Your task to perform on an android device: toggle priority inbox in the gmail app Image 0: 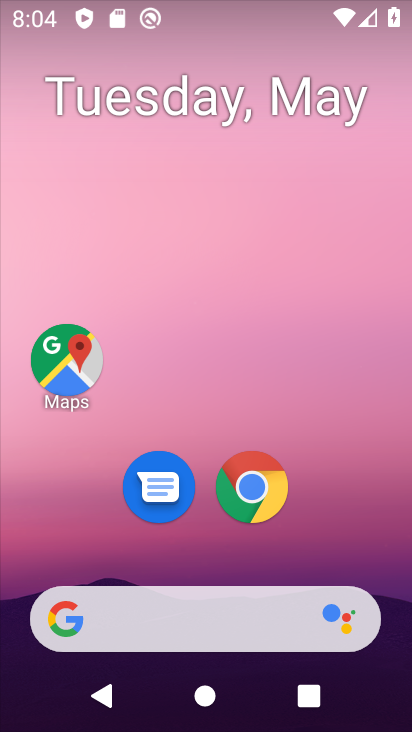
Step 0: drag from (225, 422) to (141, 68)
Your task to perform on an android device: toggle priority inbox in the gmail app Image 1: 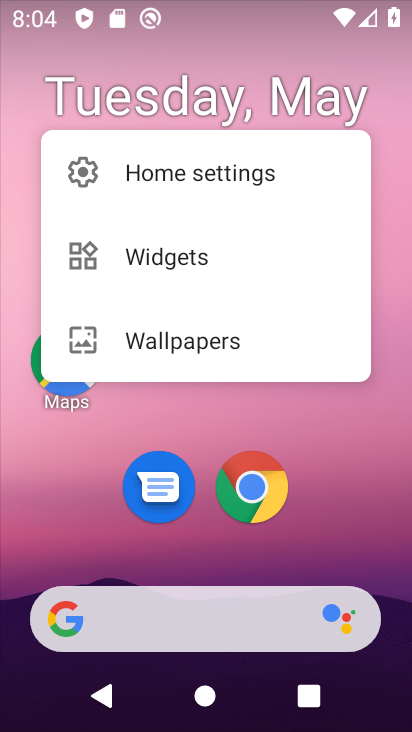
Step 1: click (359, 465)
Your task to perform on an android device: toggle priority inbox in the gmail app Image 2: 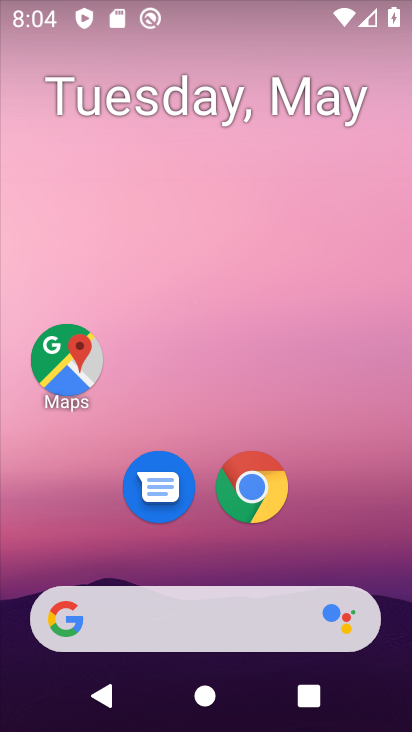
Step 2: drag from (320, 537) to (213, 130)
Your task to perform on an android device: toggle priority inbox in the gmail app Image 3: 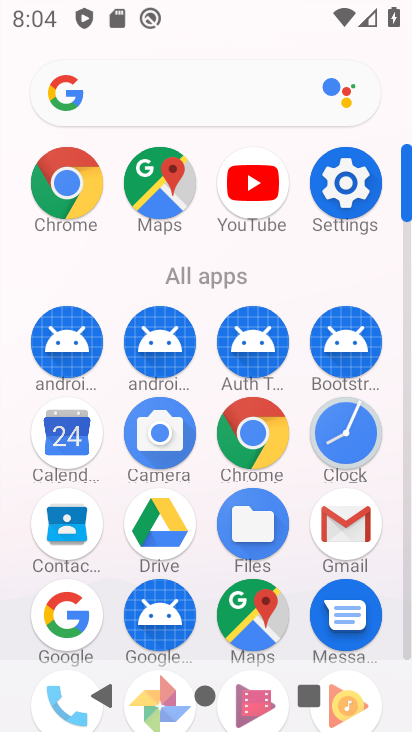
Step 3: click (353, 186)
Your task to perform on an android device: toggle priority inbox in the gmail app Image 4: 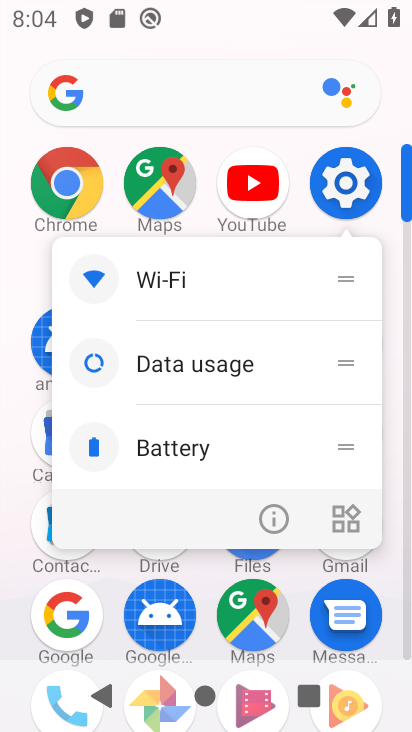
Step 4: click (360, 182)
Your task to perform on an android device: toggle priority inbox in the gmail app Image 5: 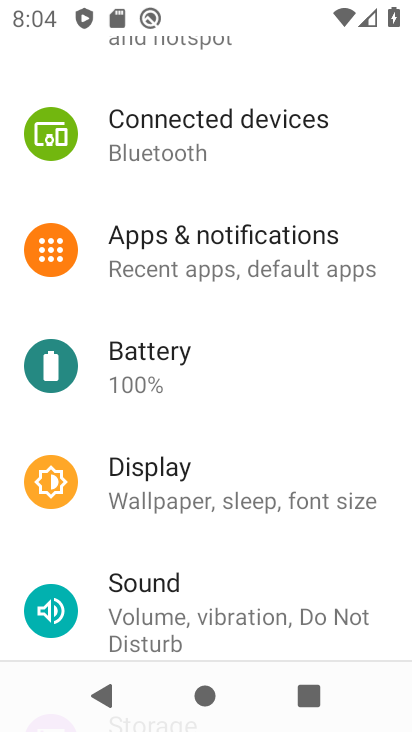
Step 5: drag from (323, 521) to (52, 201)
Your task to perform on an android device: toggle priority inbox in the gmail app Image 6: 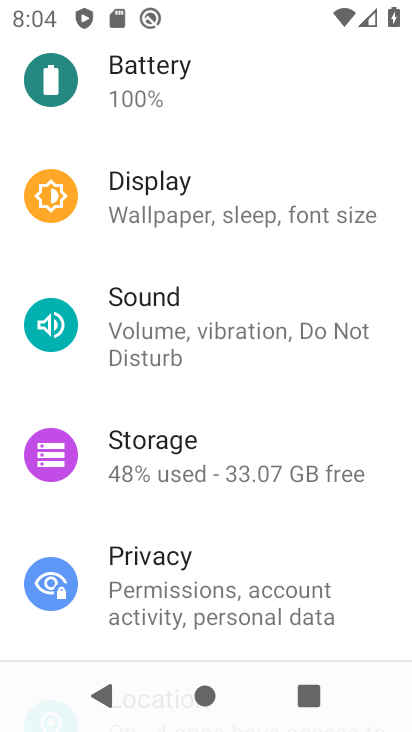
Step 6: press home button
Your task to perform on an android device: toggle priority inbox in the gmail app Image 7: 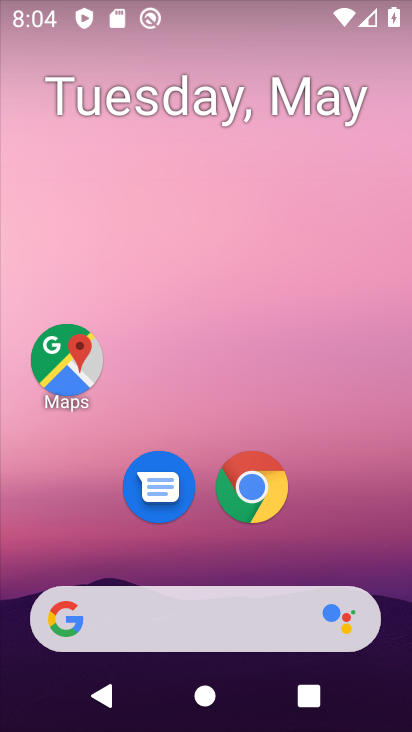
Step 7: drag from (372, 532) to (346, 11)
Your task to perform on an android device: toggle priority inbox in the gmail app Image 8: 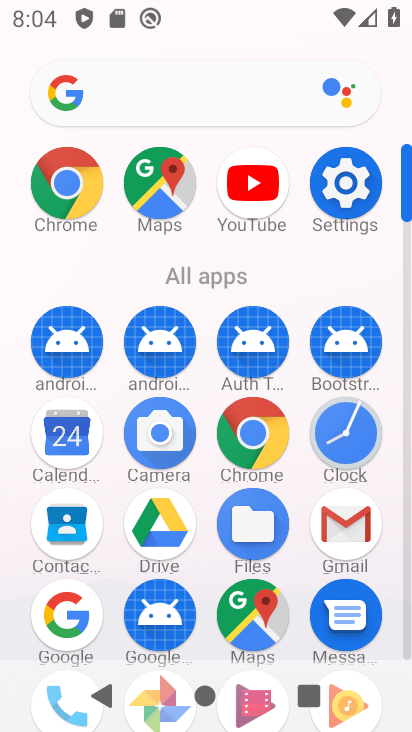
Step 8: click (345, 516)
Your task to perform on an android device: toggle priority inbox in the gmail app Image 9: 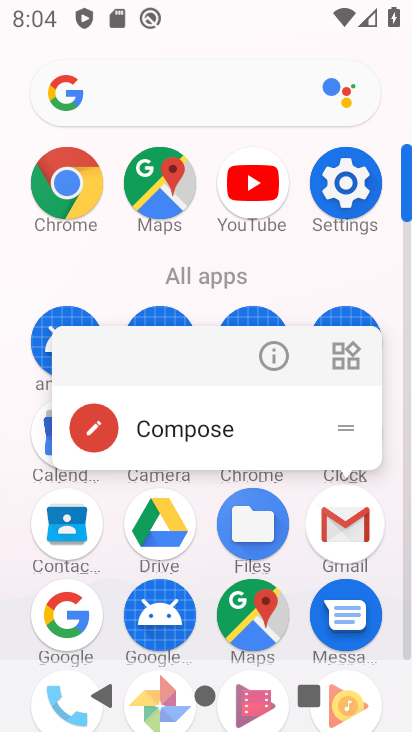
Step 9: click (345, 516)
Your task to perform on an android device: toggle priority inbox in the gmail app Image 10: 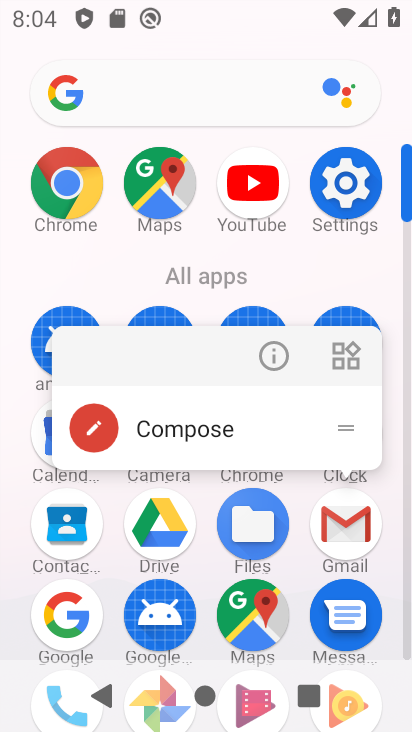
Step 10: click (345, 516)
Your task to perform on an android device: toggle priority inbox in the gmail app Image 11: 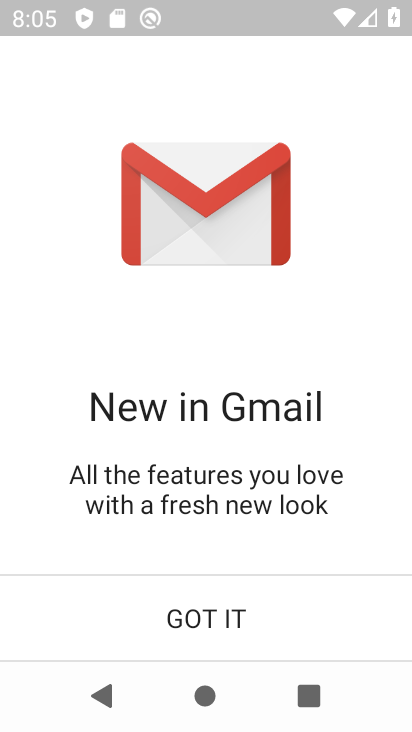
Step 11: click (224, 614)
Your task to perform on an android device: toggle priority inbox in the gmail app Image 12: 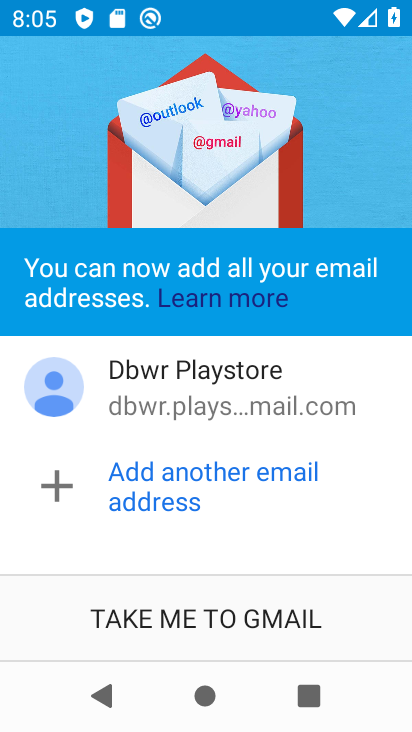
Step 12: click (224, 614)
Your task to perform on an android device: toggle priority inbox in the gmail app Image 13: 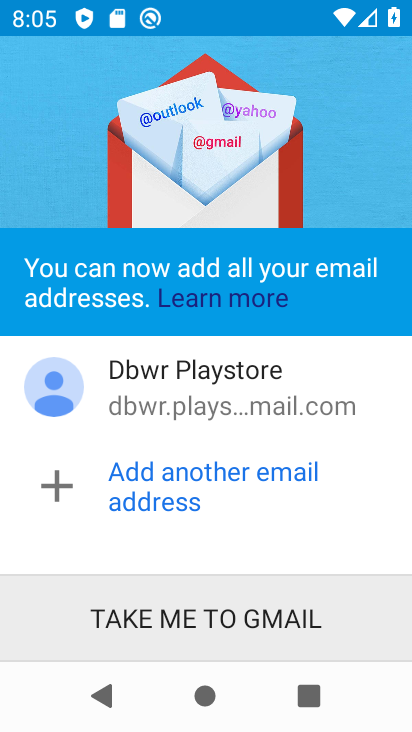
Step 13: click (224, 614)
Your task to perform on an android device: toggle priority inbox in the gmail app Image 14: 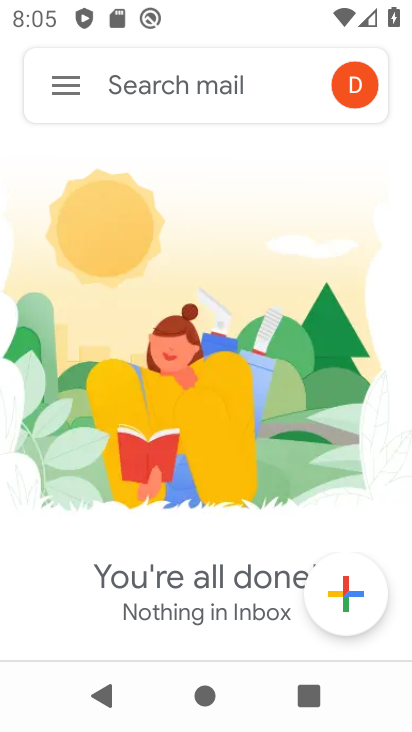
Step 14: click (56, 91)
Your task to perform on an android device: toggle priority inbox in the gmail app Image 15: 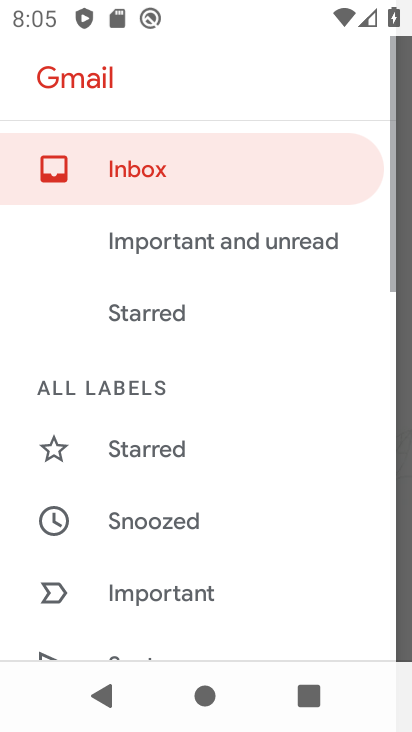
Step 15: click (56, 91)
Your task to perform on an android device: toggle priority inbox in the gmail app Image 16: 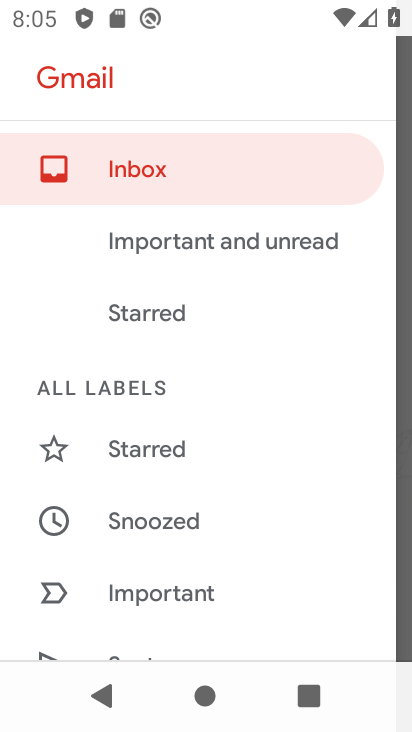
Step 16: drag from (294, 504) to (182, 156)
Your task to perform on an android device: toggle priority inbox in the gmail app Image 17: 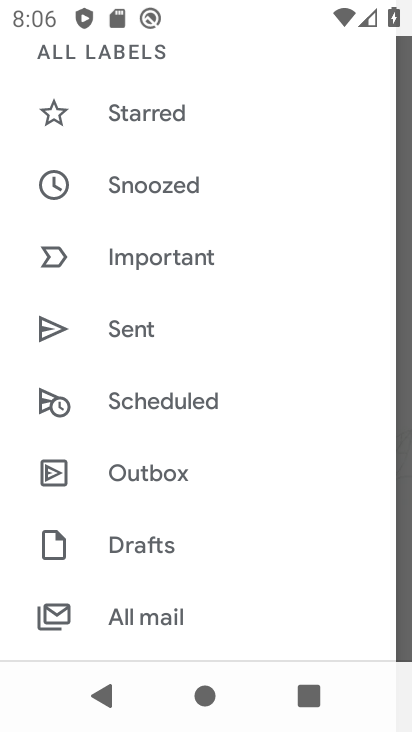
Step 17: drag from (266, 549) to (285, 126)
Your task to perform on an android device: toggle priority inbox in the gmail app Image 18: 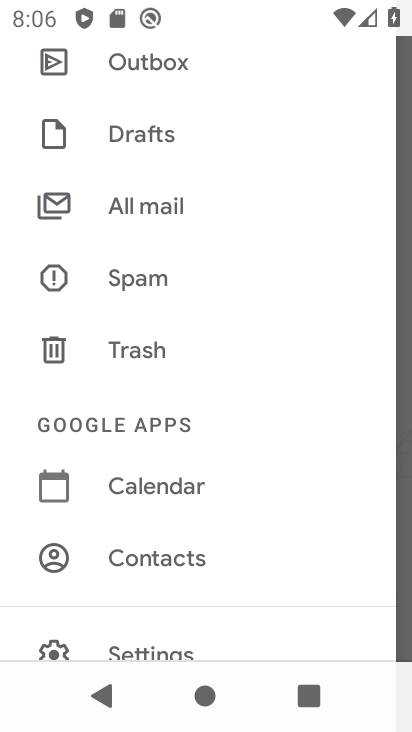
Step 18: drag from (283, 616) to (294, 213)
Your task to perform on an android device: toggle priority inbox in the gmail app Image 19: 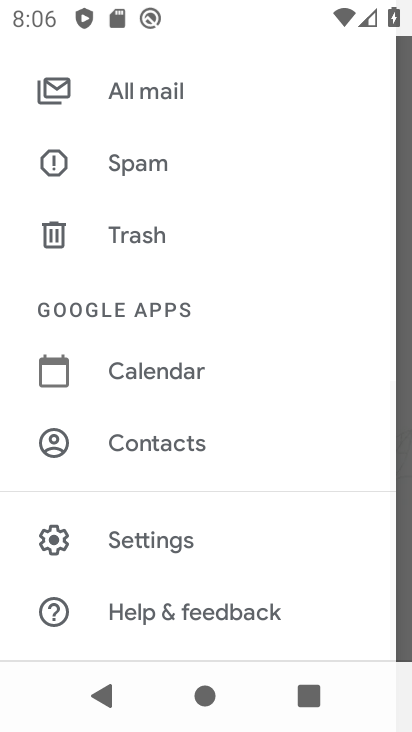
Step 19: click (168, 538)
Your task to perform on an android device: toggle priority inbox in the gmail app Image 20: 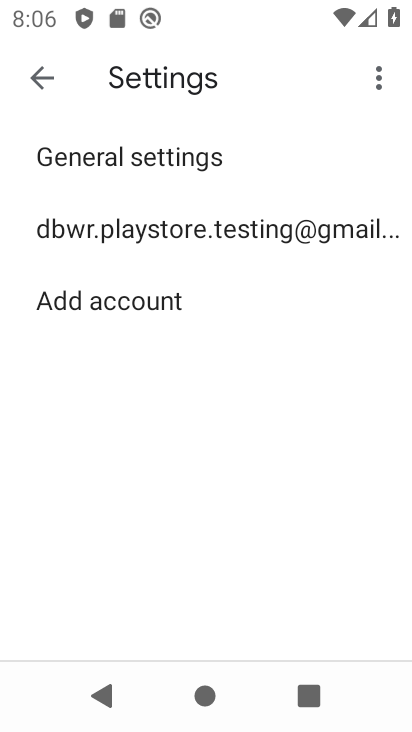
Step 20: click (164, 223)
Your task to perform on an android device: toggle priority inbox in the gmail app Image 21: 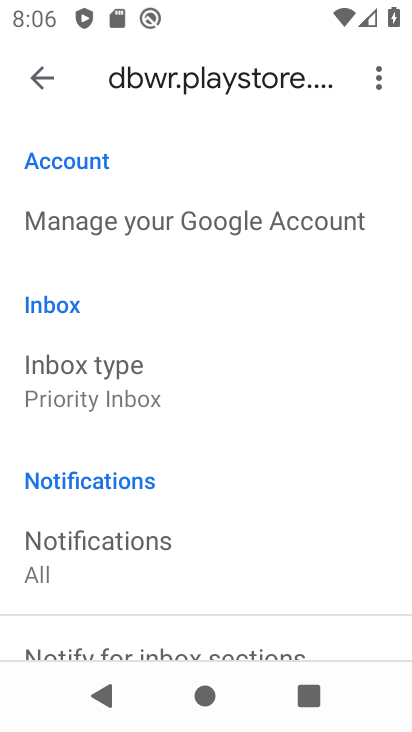
Step 21: click (102, 391)
Your task to perform on an android device: toggle priority inbox in the gmail app Image 22: 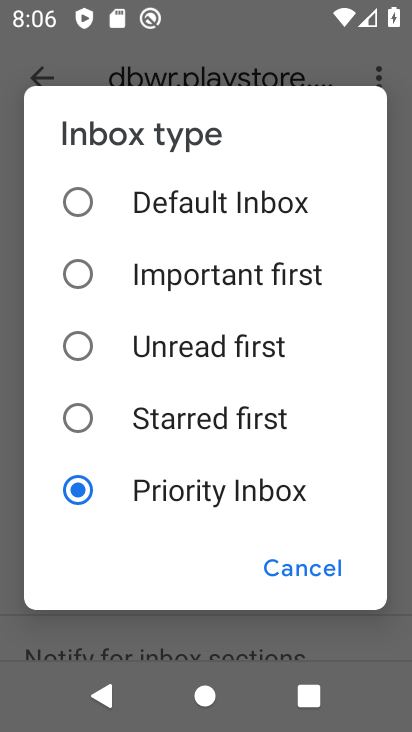
Step 22: click (203, 195)
Your task to perform on an android device: toggle priority inbox in the gmail app Image 23: 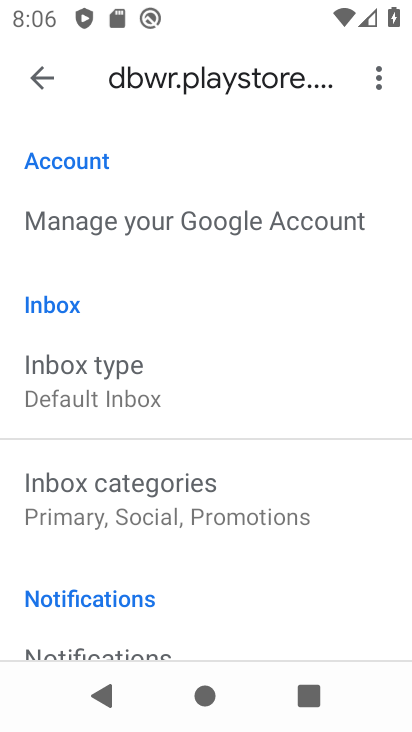
Step 23: task complete